Your task to perform on an android device: set an alarm Image 0: 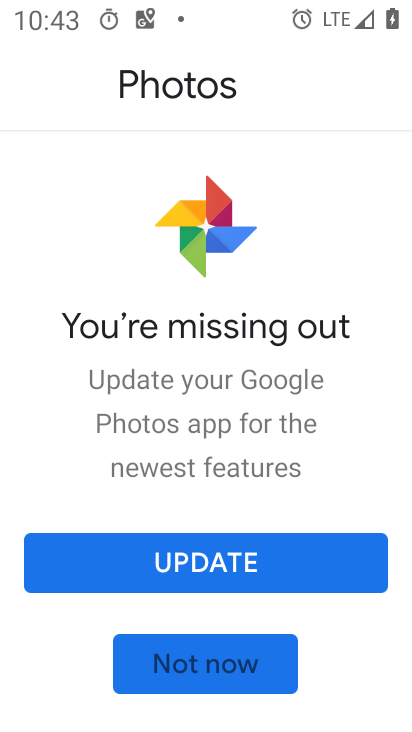
Step 0: press home button
Your task to perform on an android device: set an alarm Image 1: 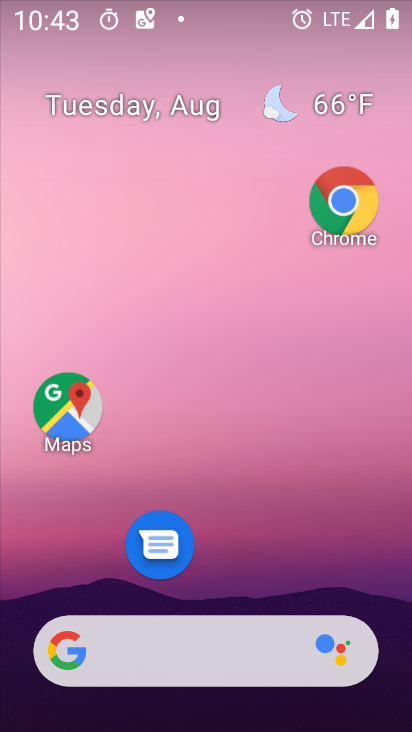
Step 1: drag from (163, 606) to (235, 161)
Your task to perform on an android device: set an alarm Image 2: 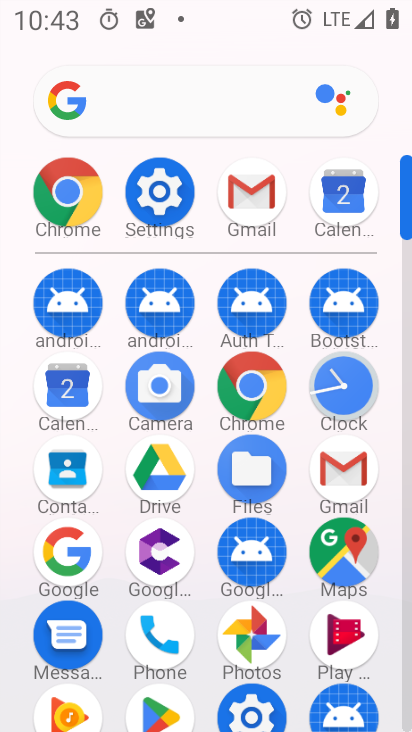
Step 2: drag from (136, 556) to (121, 78)
Your task to perform on an android device: set an alarm Image 3: 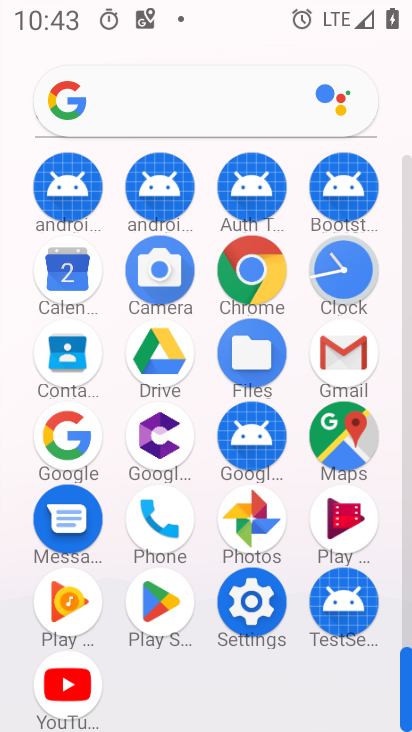
Step 3: click (336, 291)
Your task to perform on an android device: set an alarm Image 4: 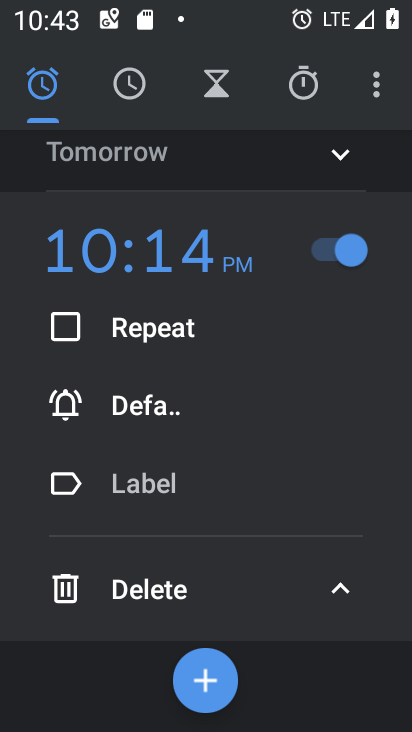
Step 4: click (212, 685)
Your task to perform on an android device: set an alarm Image 5: 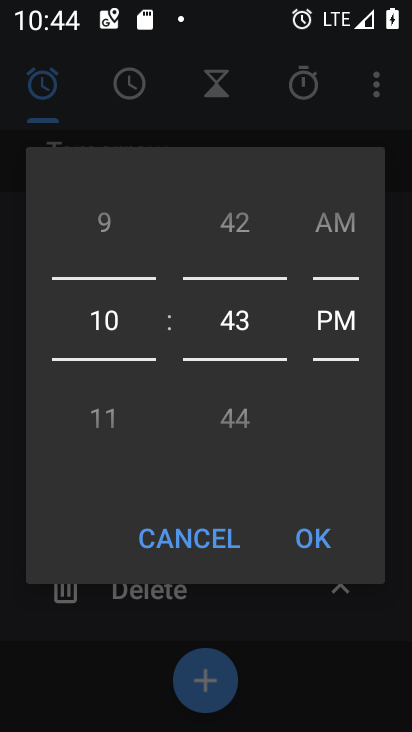
Step 5: drag from (234, 379) to (223, 182)
Your task to perform on an android device: set an alarm Image 6: 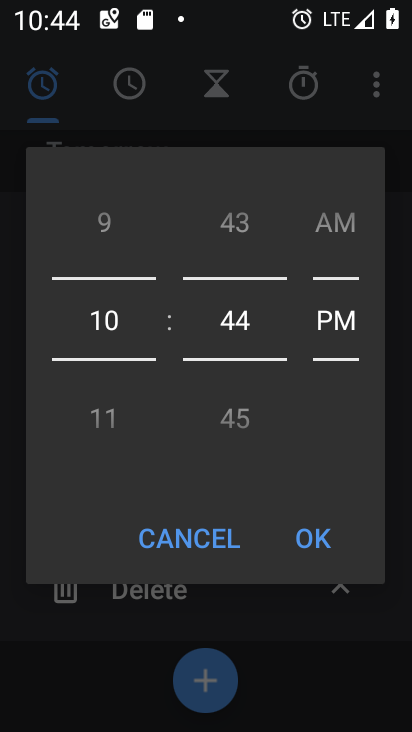
Step 6: click (313, 538)
Your task to perform on an android device: set an alarm Image 7: 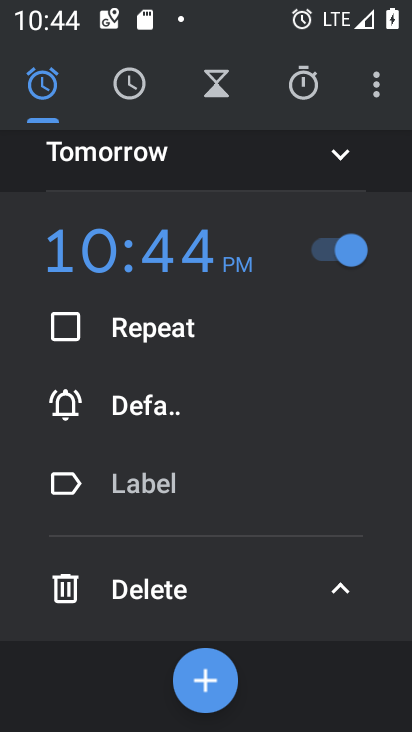
Step 7: task complete